Your task to perform on an android device: Open the stopwatch Image 0: 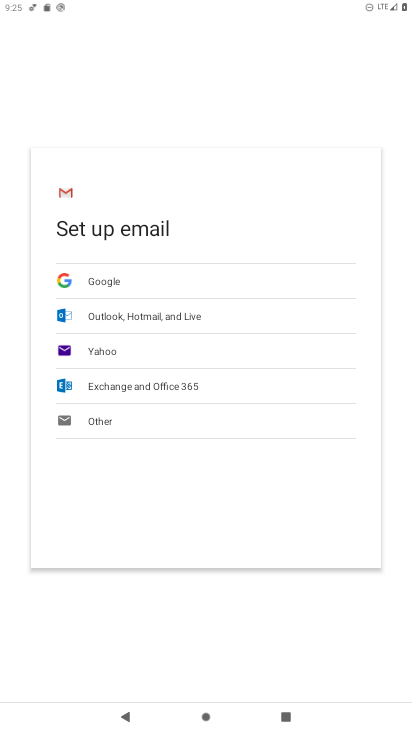
Step 0: press home button
Your task to perform on an android device: Open the stopwatch Image 1: 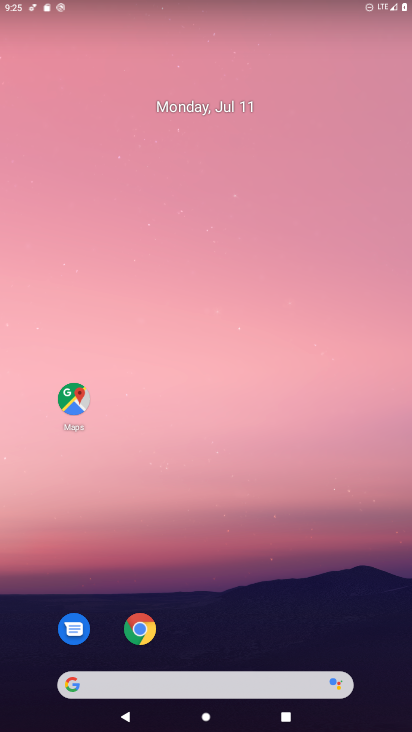
Step 1: drag from (165, 655) to (162, 228)
Your task to perform on an android device: Open the stopwatch Image 2: 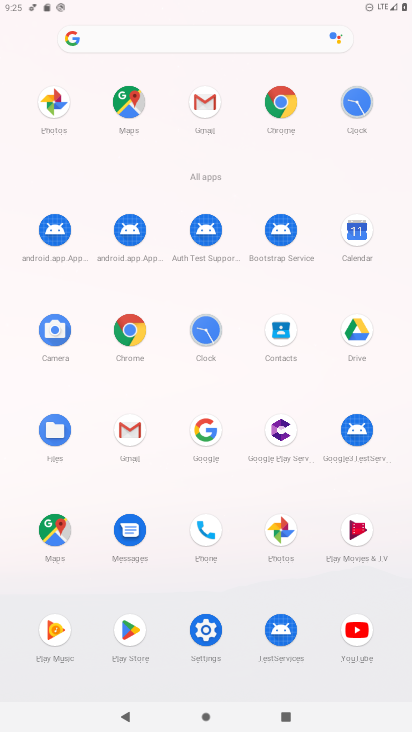
Step 2: click (209, 333)
Your task to perform on an android device: Open the stopwatch Image 3: 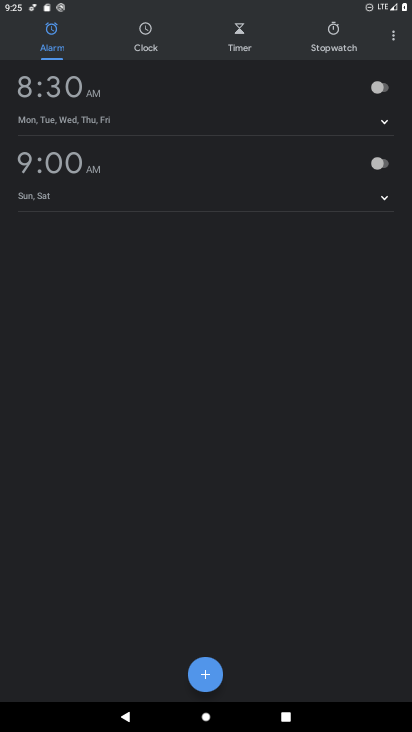
Step 3: click (349, 32)
Your task to perform on an android device: Open the stopwatch Image 4: 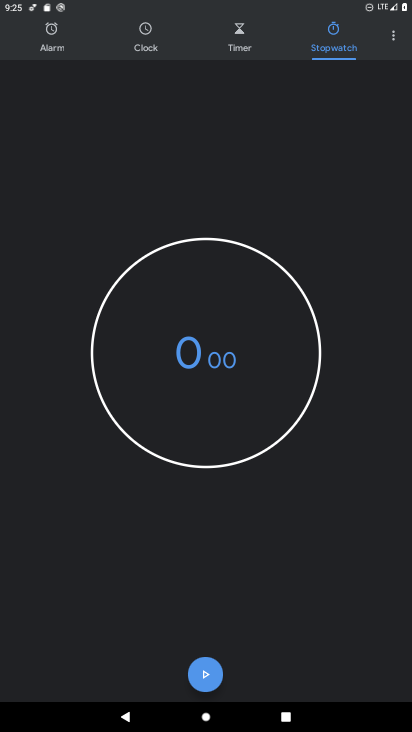
Step 4: task complete